Your task to perform on an android device: clear history in the chrome app Image 0: 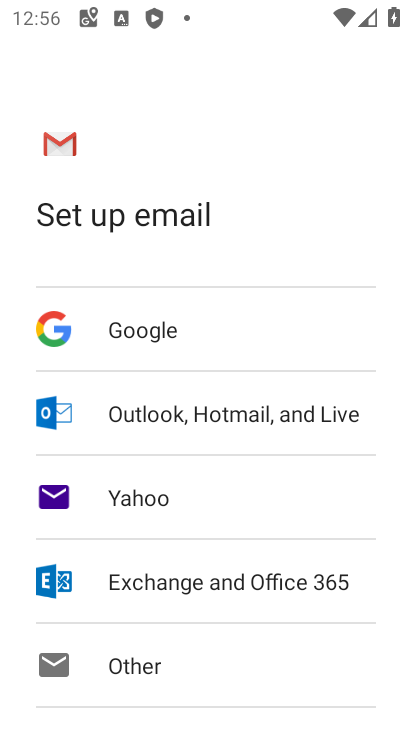
Step 0: press home button
Your task to perform on an android device: clear history in the chrome app Image 1: 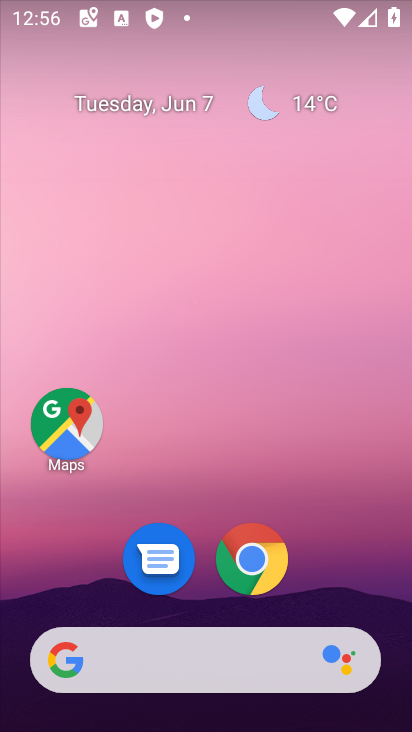
Step 1: click (256, 556)
Your task to perform on an android device: clear history in the chrome app Image 2: 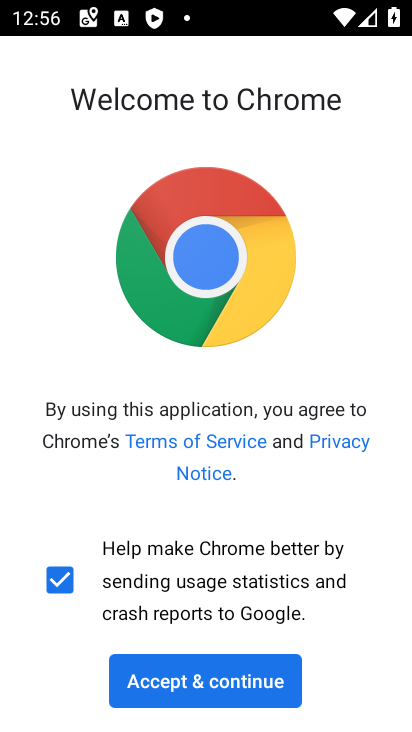
Step 2: click (207, 682)
Your task to perform on an android device: clear history in the chrome app Image 3: 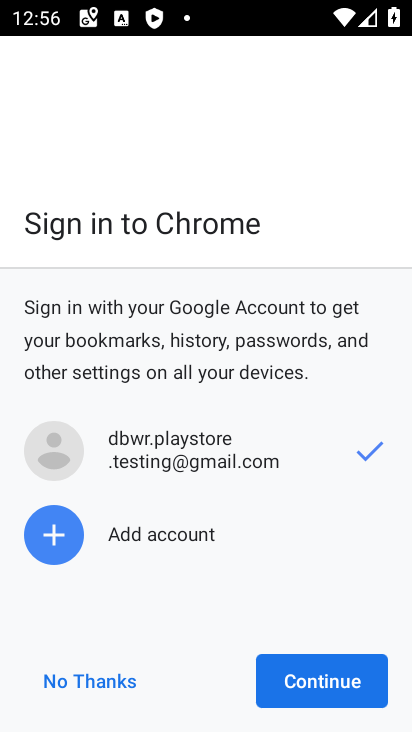
Step 3: click (329, 680)
Your task to perform on an android device: clear history in the chrome app Image 4: 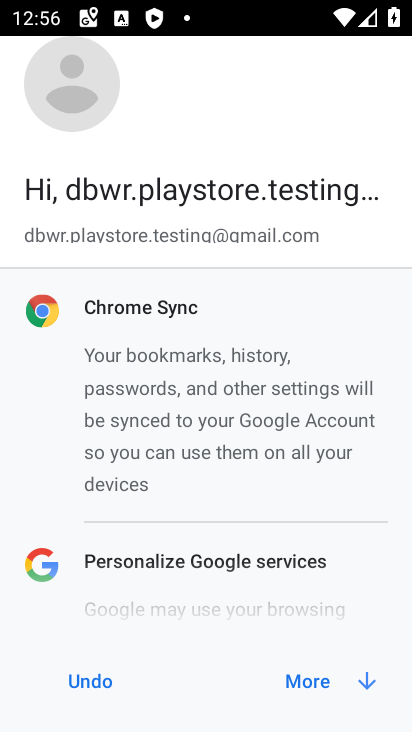
Step 4: click (315, 680)
Your task to perform on an android device: clear history in the chrome app Image 5: 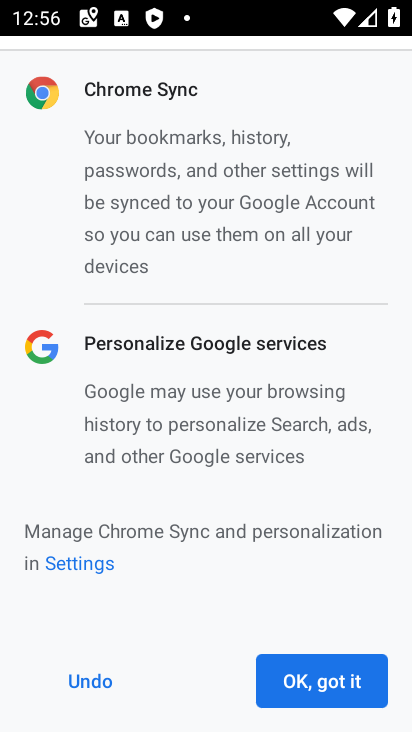
Step 5: click (314, 678)
Your task to perform on an android device: clear history in the chrome app Image 6: 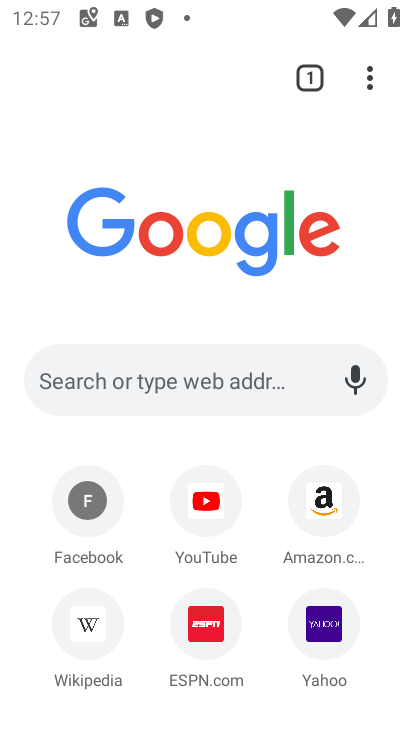
Step 6: click (366, 81)
Your task to perform on an android device: clear history in the chrome app Image 7: 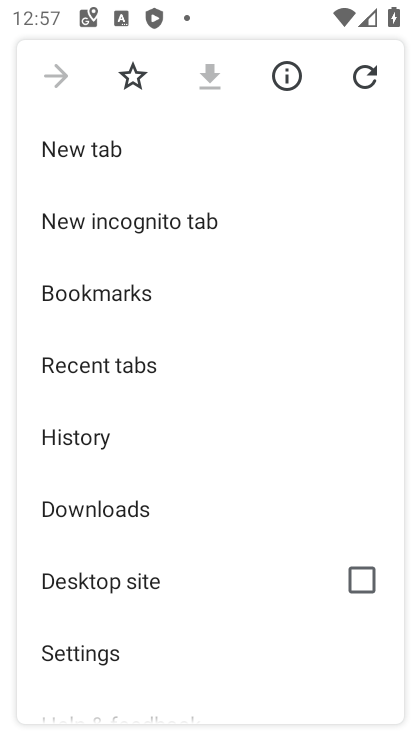
Step 7: click (95, 438)
Your task to perform on an android device: clear history in the chrome app Image 8: 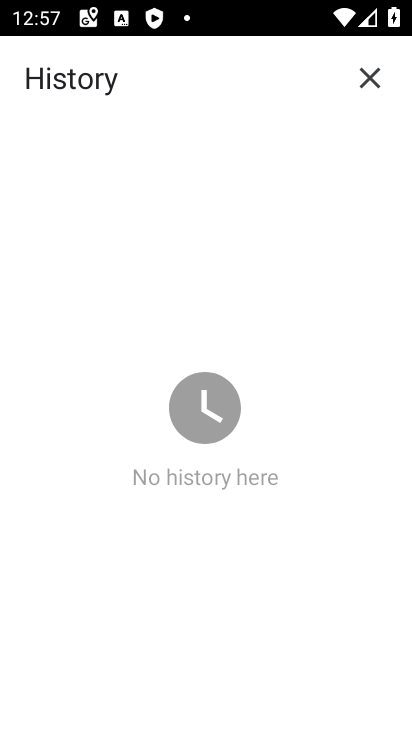
Step 8: task complete